Your task to perform on an android device: allow cookies in the chrome app Image 0: 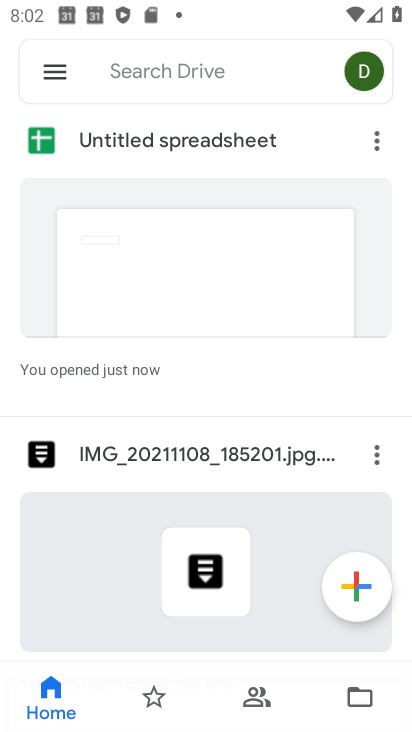
Step 0: press home button
Your task to perform on an android device: allow cookies in the chrome app Image 1: 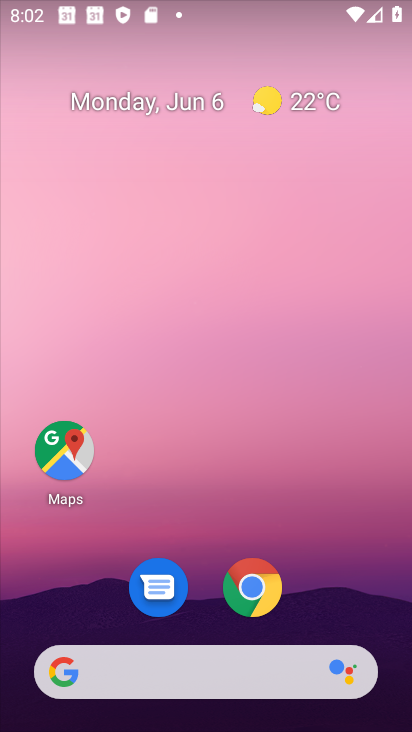
Step 1: drag from (215, 661) to (154, 230)
Your task to perform on an android device: allow cookies in the chrome app Image 2: 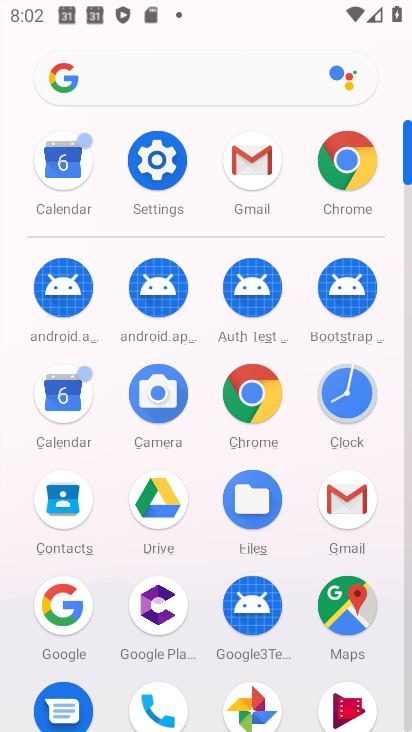
Step 2: click (255, 404)
Your task to perform on an android device: allow cookies in the chrome app Image 3: 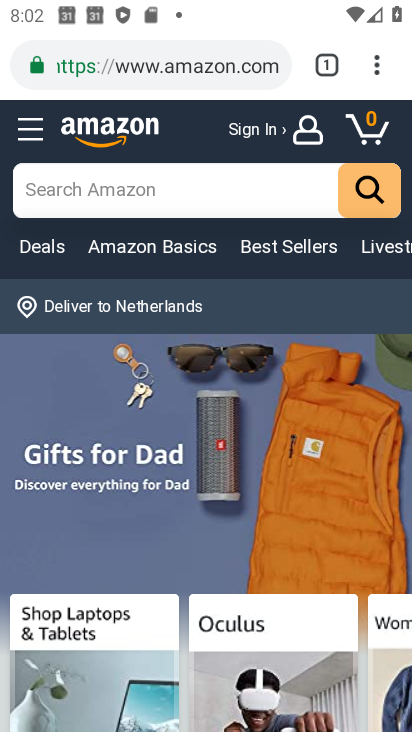
Step 3: click (382, 59)
Your task to perform on an android device: allow cookies in the chrome app Image 4: 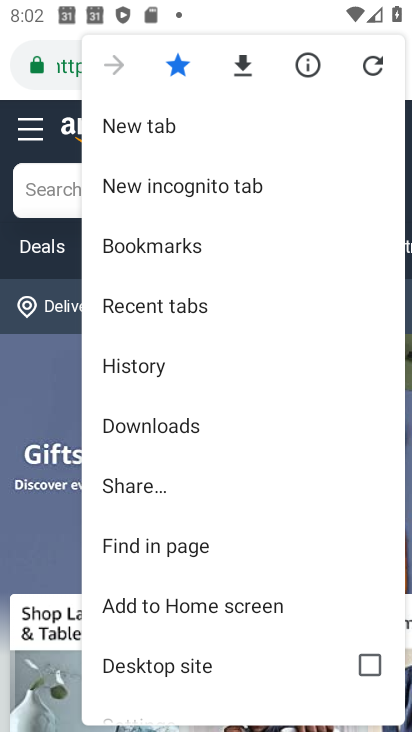
Step 4: drag from (165, 603) to (127, 302)
Your task to perform on an android device: allow cookies in the chrome app Image 5: 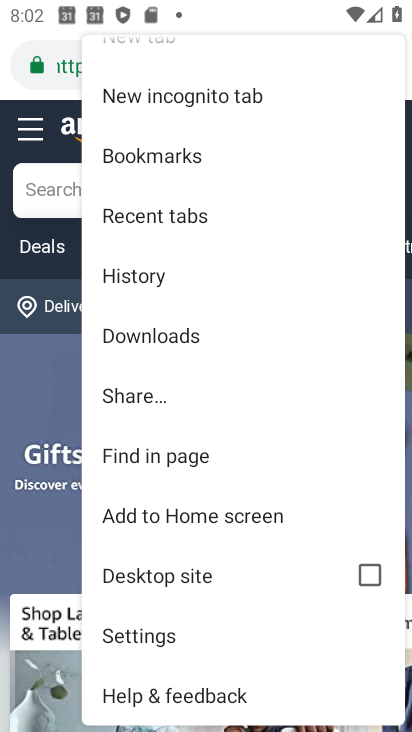
Step 5: click (144, 639)
Your task to perform on an android device: allow cookies in the chrome app Image 6: 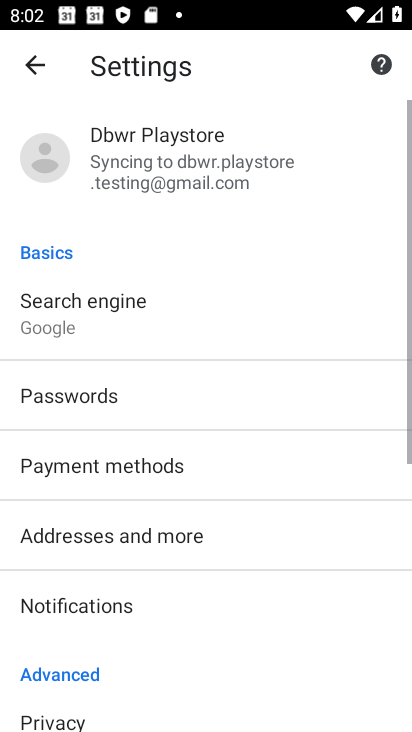
Step 6: drag from (134, 675) to (166, 329)
Your task to perform on an android device: allow cookies in the chrome app Image 7: 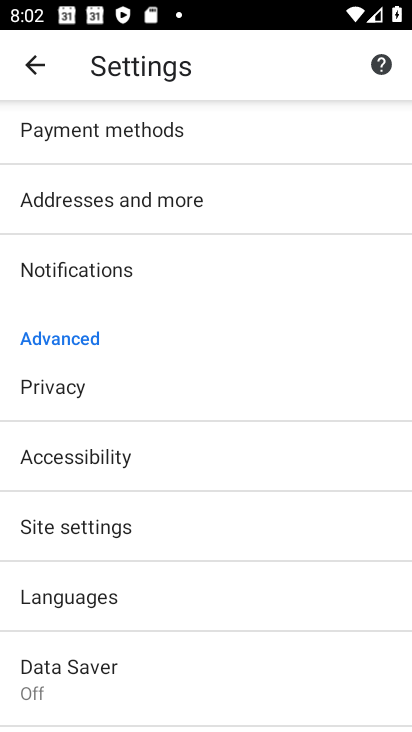
Step 7: click (74, 516)
Your task to perform on an android device: allow cookies in the chrome app Image 8: 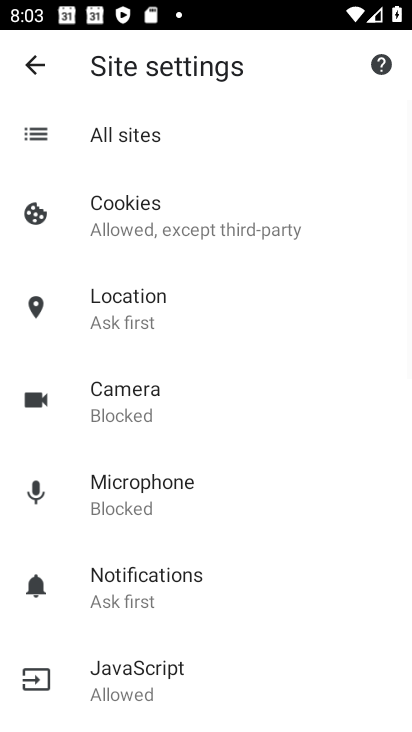
Step 8: click (150, 223)
Your task to perform on an android device: allow cookies in the chrome app Image 9: 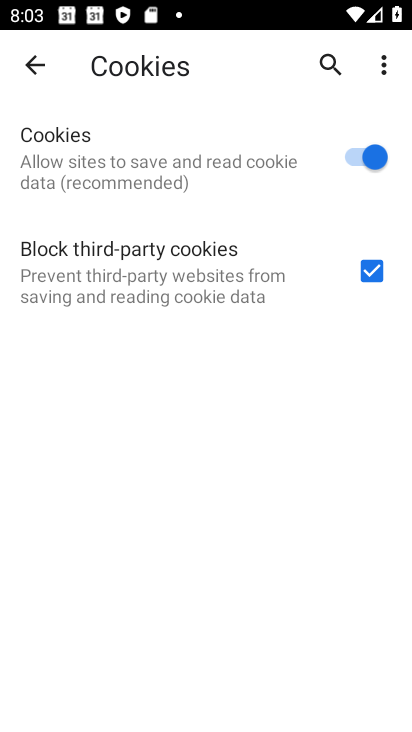
Step 9: task complete